Your task to perform on an android device: set default search engine in the chrome app Image 0: 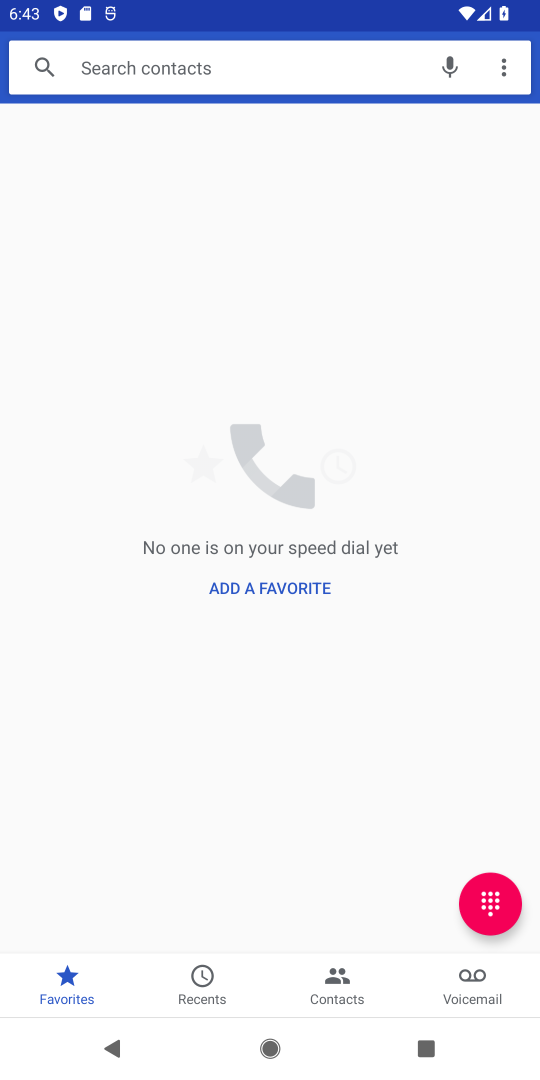
Step 0: press back button
Your task to perform on an android device: set default search engine in the chrome app Image 1: 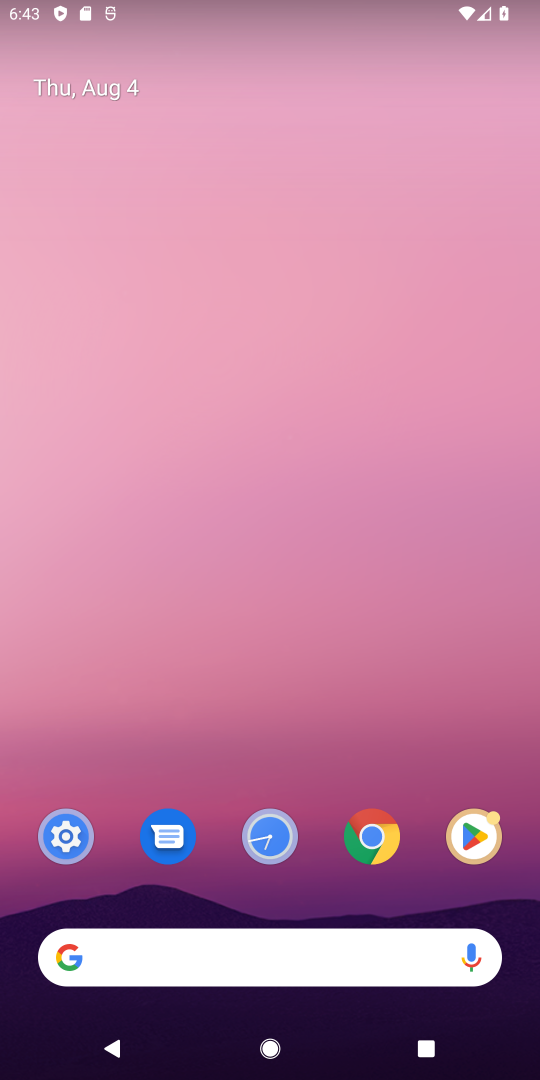
Step 1: click (359, 838)
Your task to perform on an android device: set default search engine in the chrome app Image 2: 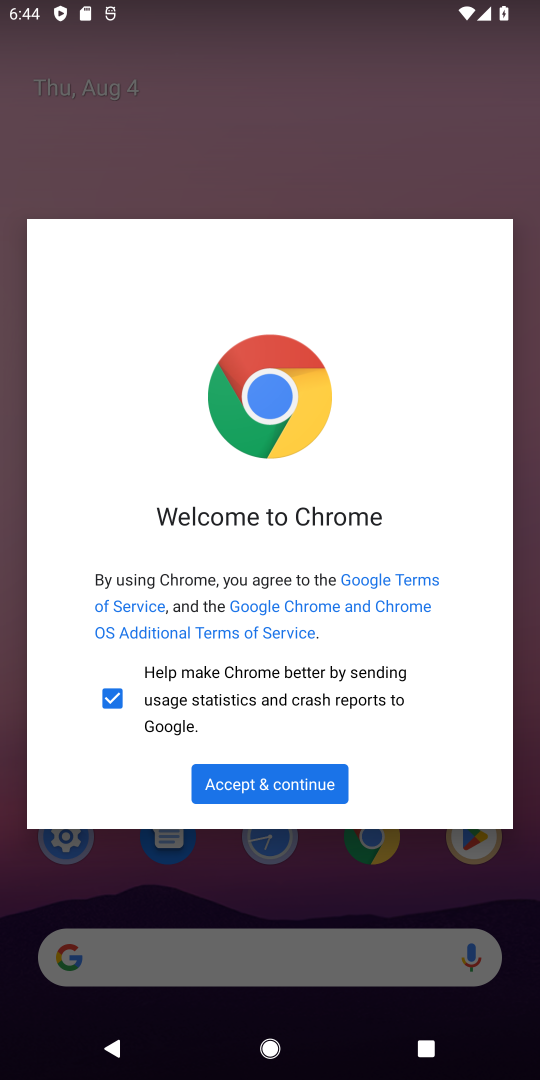
Step 2: click (268, 779)
Your task to perform on an android device: set default search engine in the chrome app Image 3: 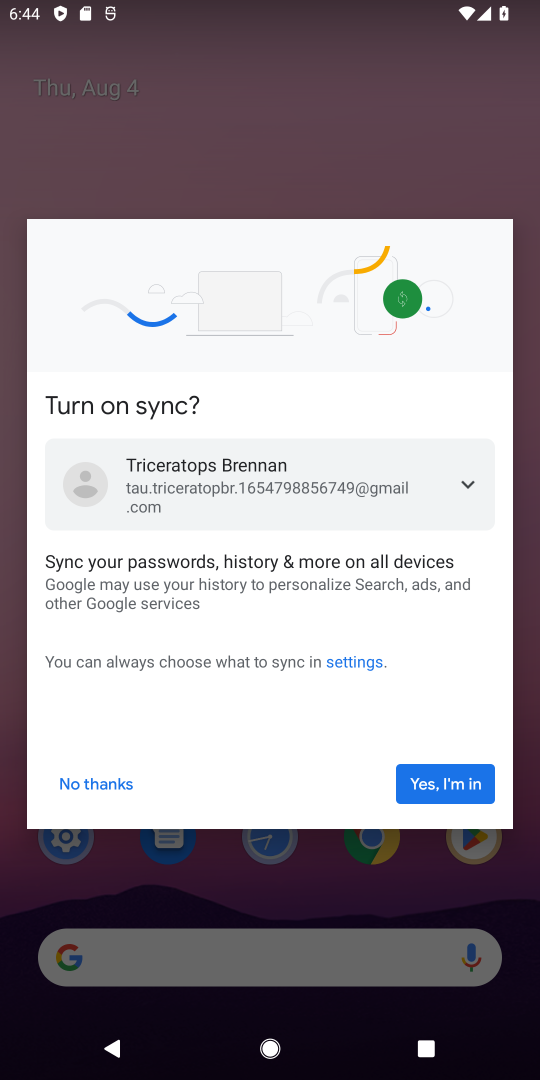
Step 3: click (428, 781)
Your task to perform on an android device: set default search engine in the chrome app Image 4: 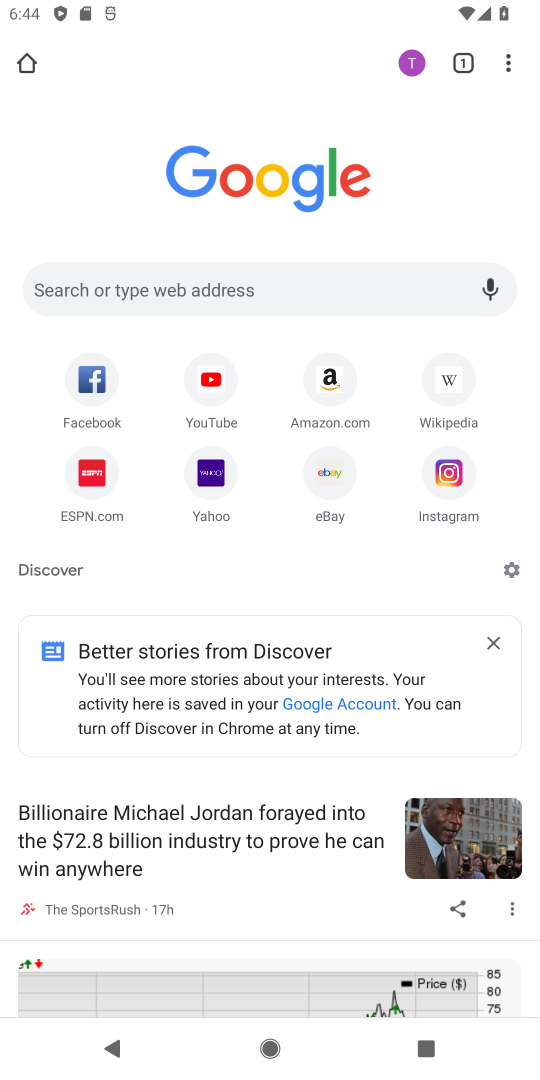
Step 4: drag from (502, 62) to (335, 523)
Your task to perform on an android device: set default search engine in the chrome app Image 5: 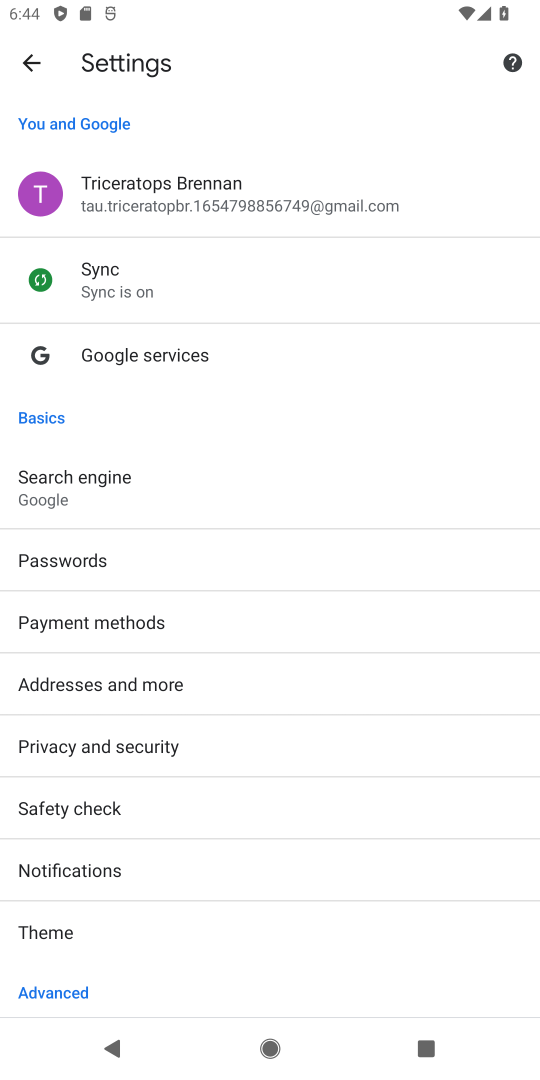
Step 5: click (124, 475)
Your task to perform on an android device: set default search engine in the chrome app Image 6: 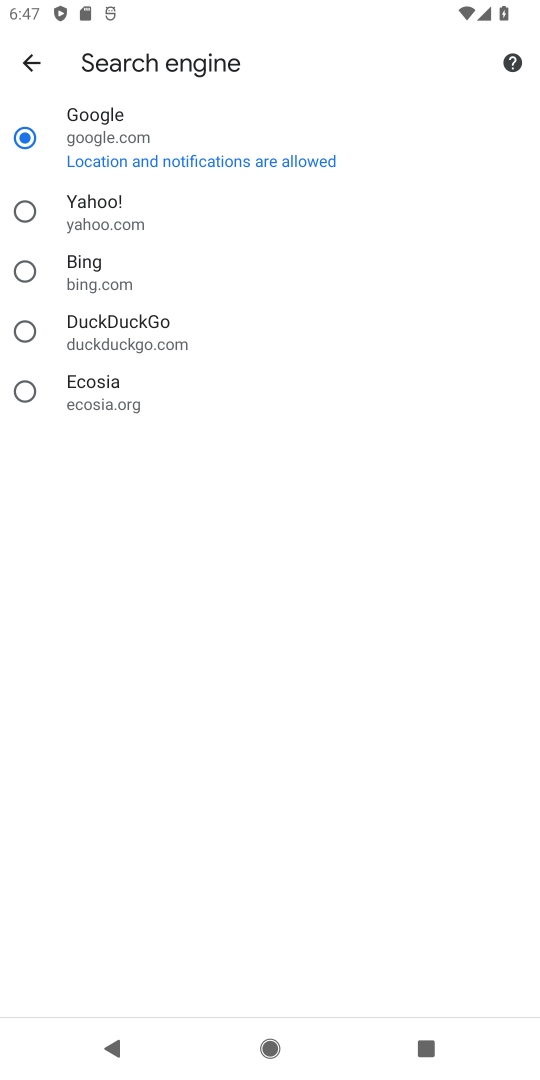
Step 6: task complete